Your task to perform on an android device: Open Wikipedia Image 0: 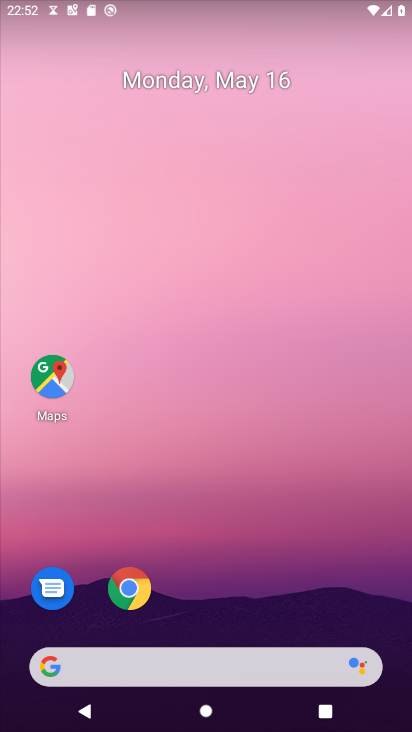
Step 0: press home button
Your task to perform on an android device: Open Wikipedia Image 1: 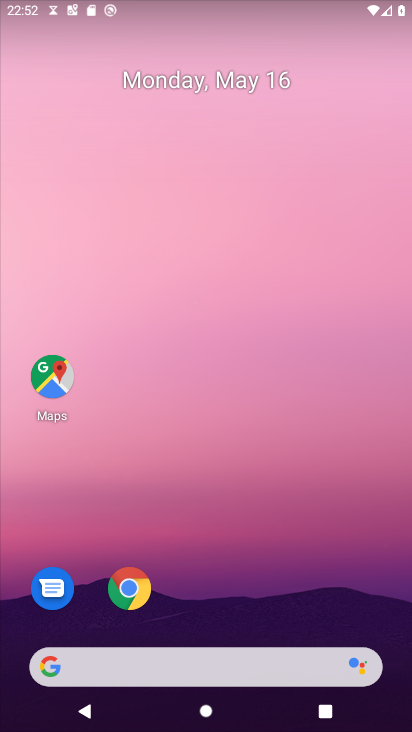
Step 1: drag from (216, 635) to (271, 117)
Your task to perform on an android device: Open Wikipedia Image 2: 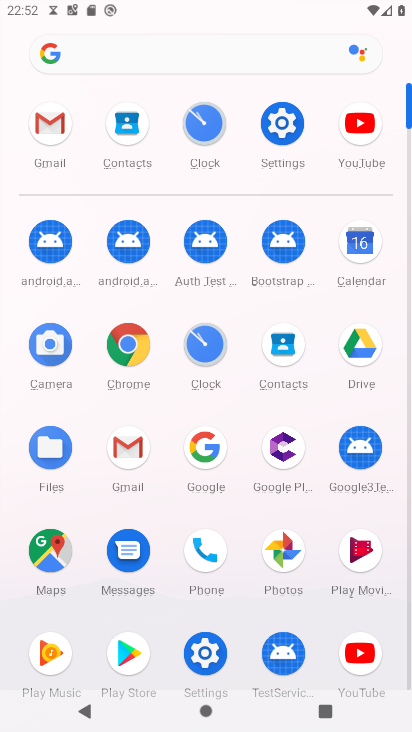
Step 2: click (126, 338)
Your task to perform on an android device: Open Wikipedia Image 3: 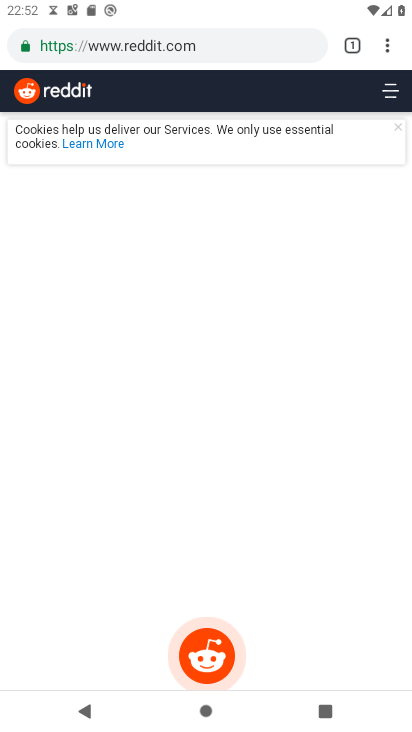
Step 3: click (353, 48)
Your task to perform on an android device: Open Wikipedia Image 4: 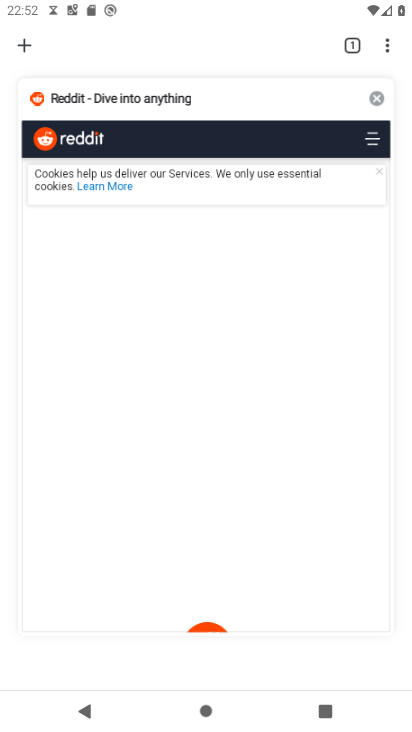
Step 4: click (375, 94)
Your task to perform on an android device: Open Wikipedia Image 5: 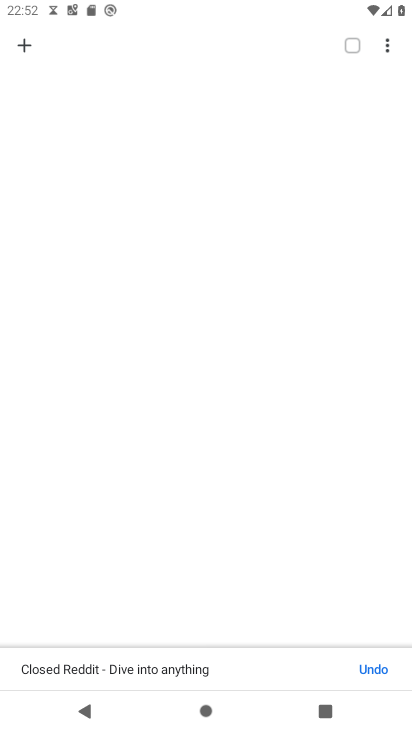
Step 5: click (29, 45)
Your task to perform on an android device: Open Wikipedia Image 6: 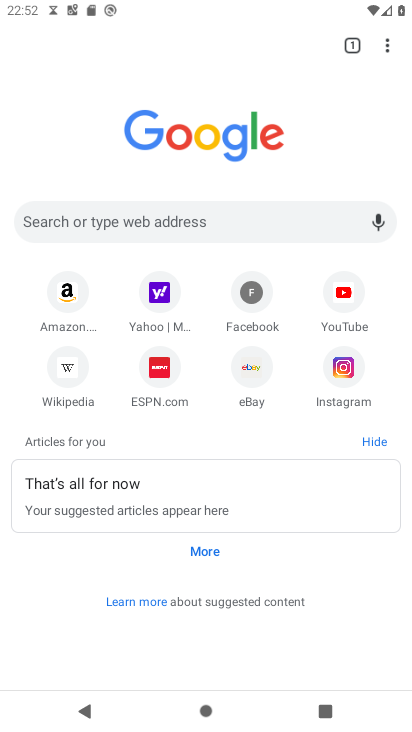
Step 6: click (67, 363)
Your task to perform on an android device: Open Wikipedia Image 7: 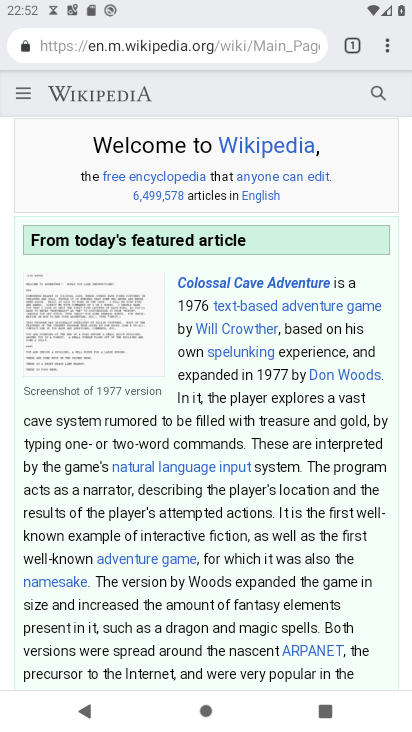
Step 7: task complete